Your task to perform on an android device: Open settings on Google Maps Image 0: 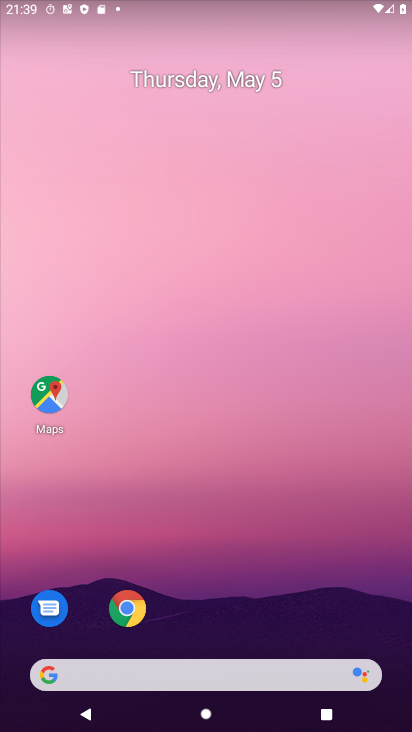
Step 0: drag from (337, 648) to (285, 3)
Your task to perform on an android device: Open settings on Google Maps Image 1: 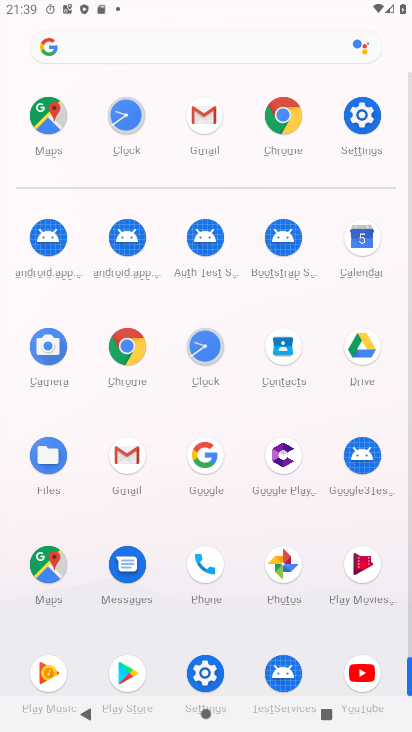
Step 1: click (361, 114)
Your task to perform on an android device: Open settings on Google Maps Image 2: 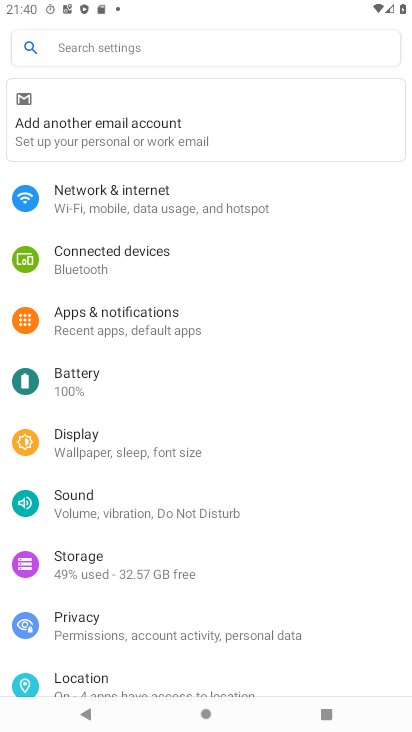
Step 2: press home button
Your task to perform on an android device: Open settings on Google Maps Image 3: 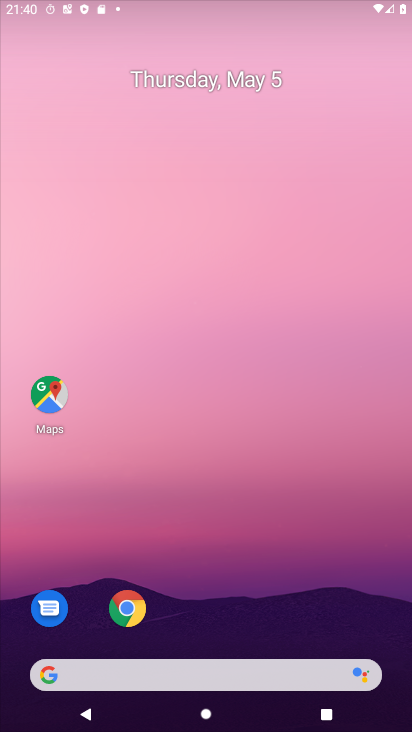
Step 3: drag from (237, 662) to (280, 0)
Your task to perform on an android device: Open settings on Google Maps Image 4: 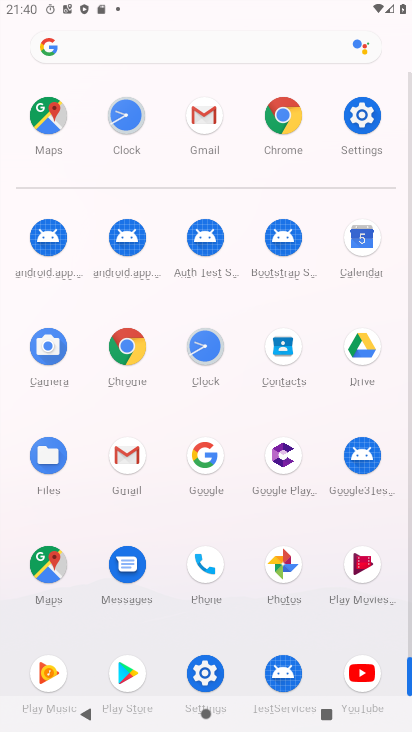
Step 4: click (32, 563)
Your task to perform on an android device: Open settings on Google Maps Image 5: 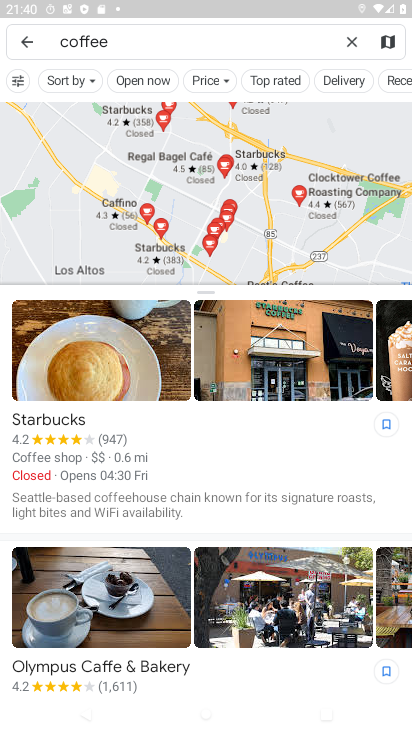
Step 5: press back button
Your task to perform on an android device: Open settings on Google Maps Image 6: 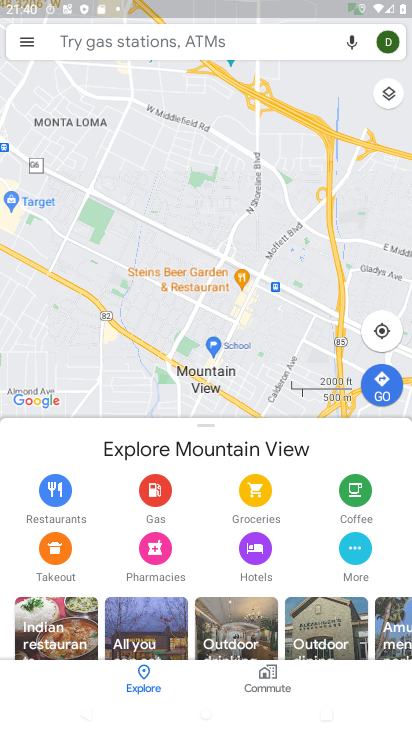
Step 6: click (26, 40)
Your task to perform on an android device: Open settings on Google Maps Image 7: 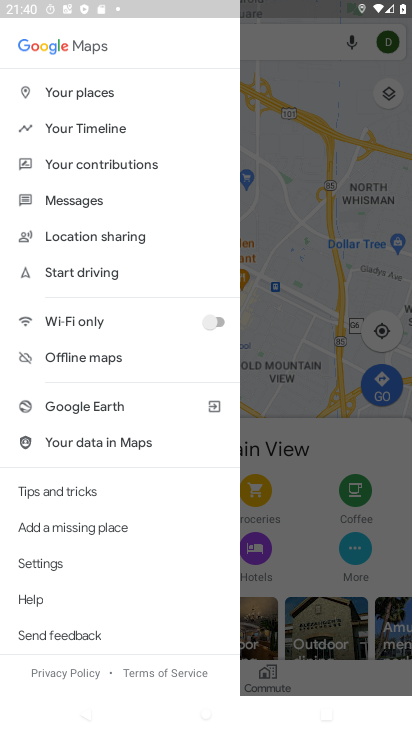
Step 7: click (65, 566)
Your task to perform on an android device: Open settings on Google Maps Image 8: 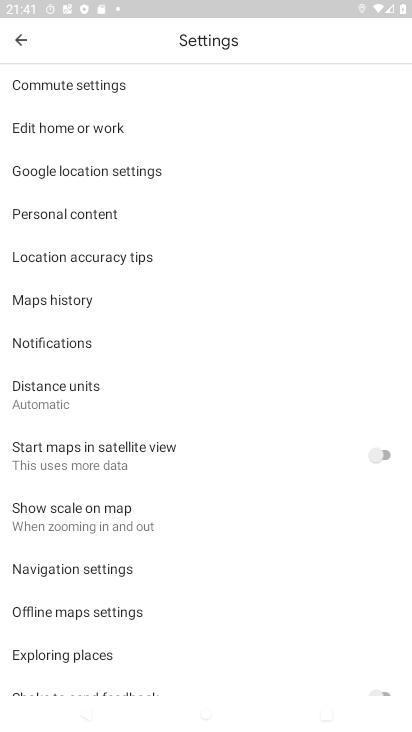
Step 8: task complete